Your task to perform on an android device: star an email in the gmail app Image 0: 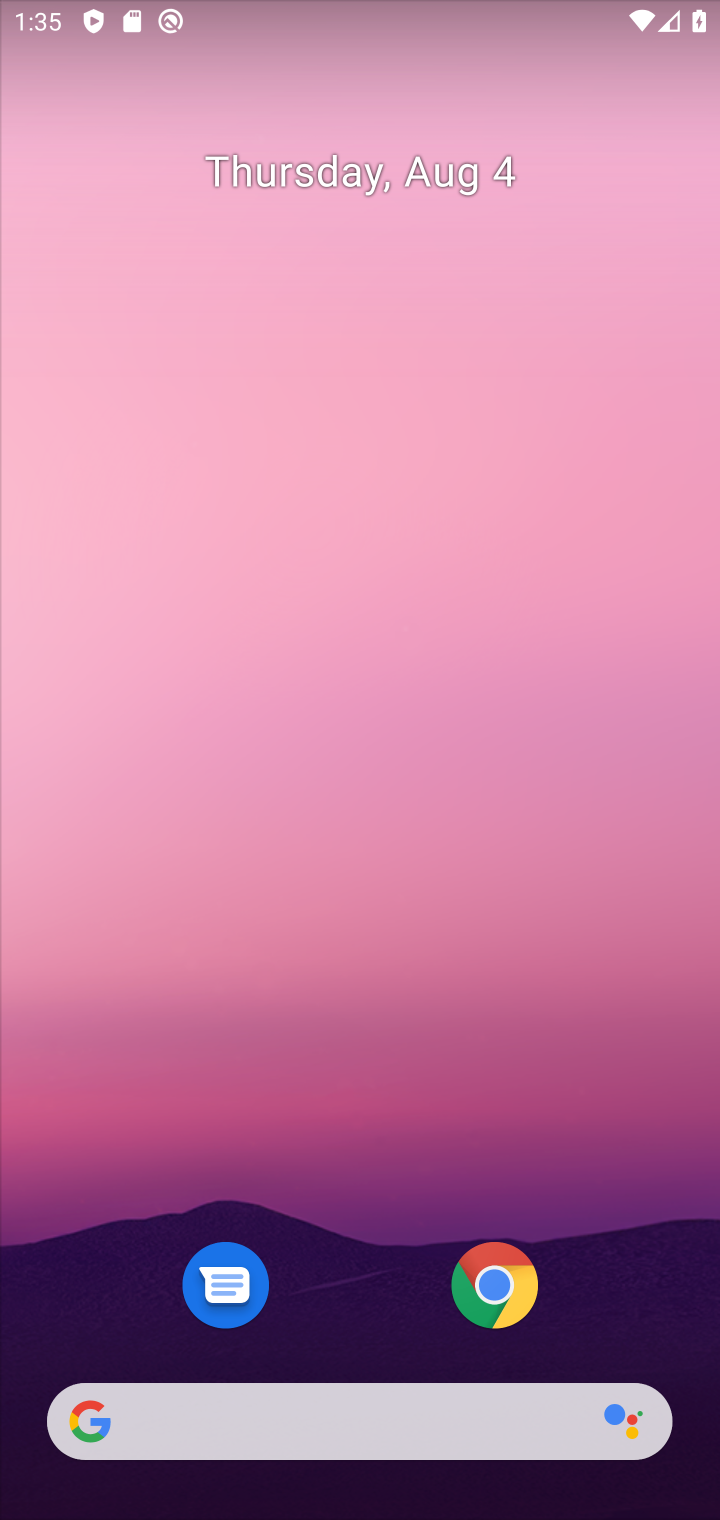
Step 0: press home button
Your task to perform on an android device: star an email in the gmail app Image 1: 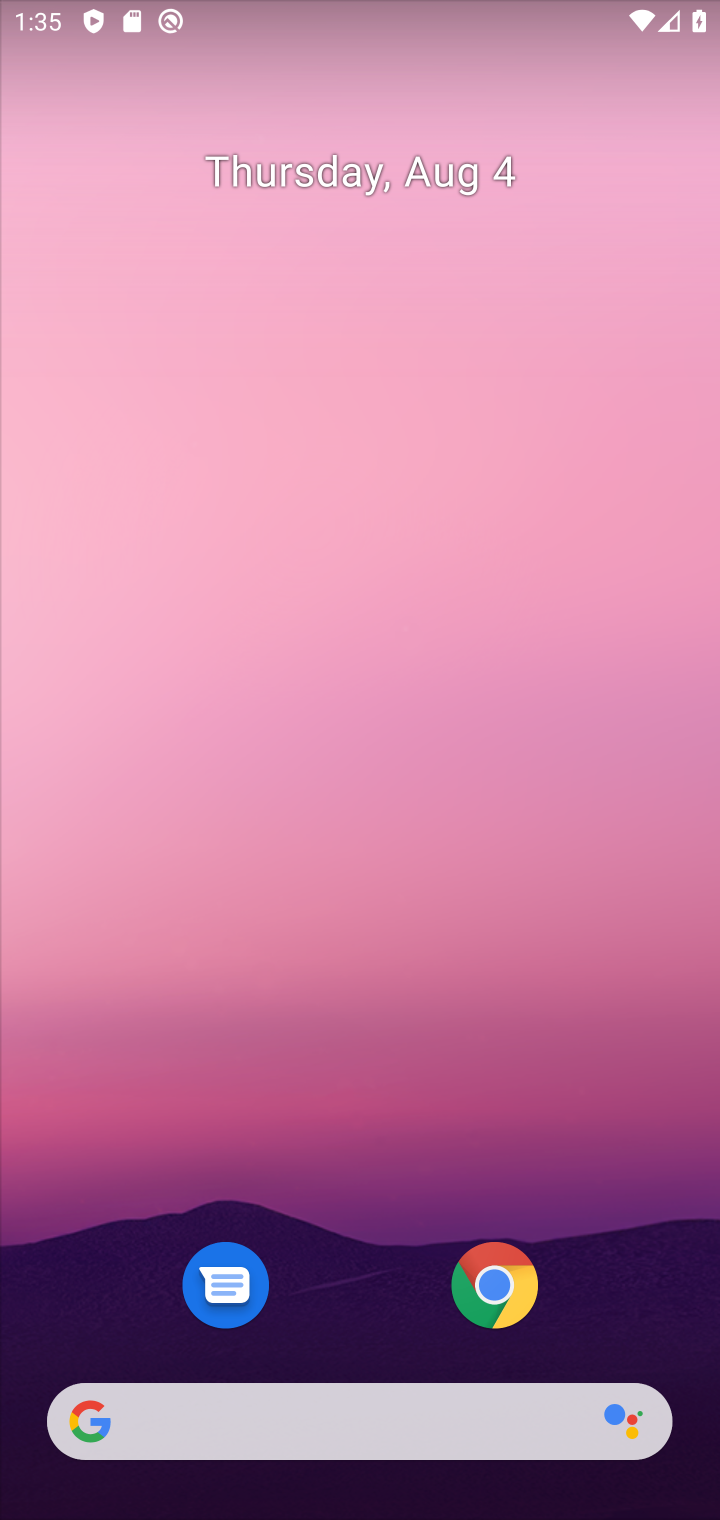
Step 1: drag from (663, 1303) to (536, 236)
Your task to perform on an android device: star an email in the gmail app Image 2: 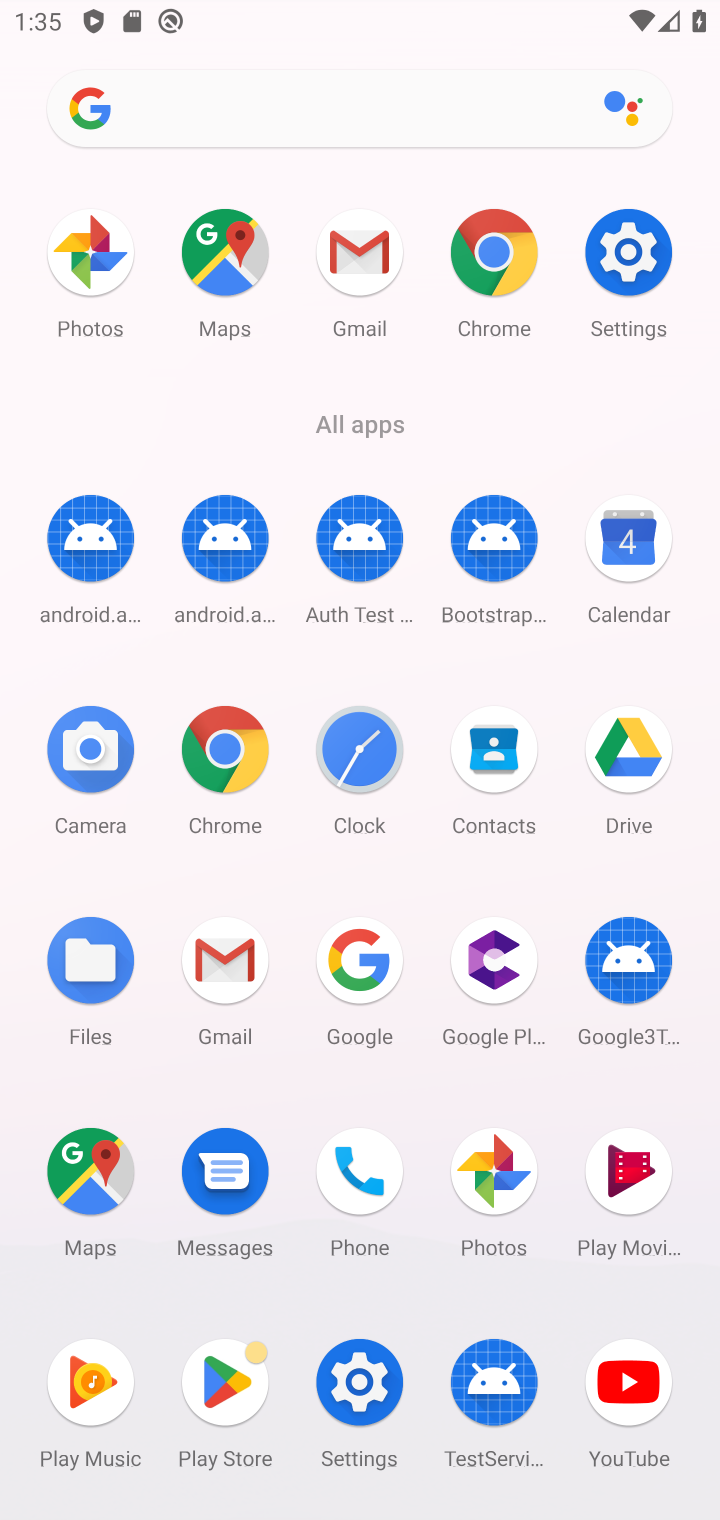
Step 2: click (230, 961)
Your task to perform on an android device: star an email in the gmail app Image 3: 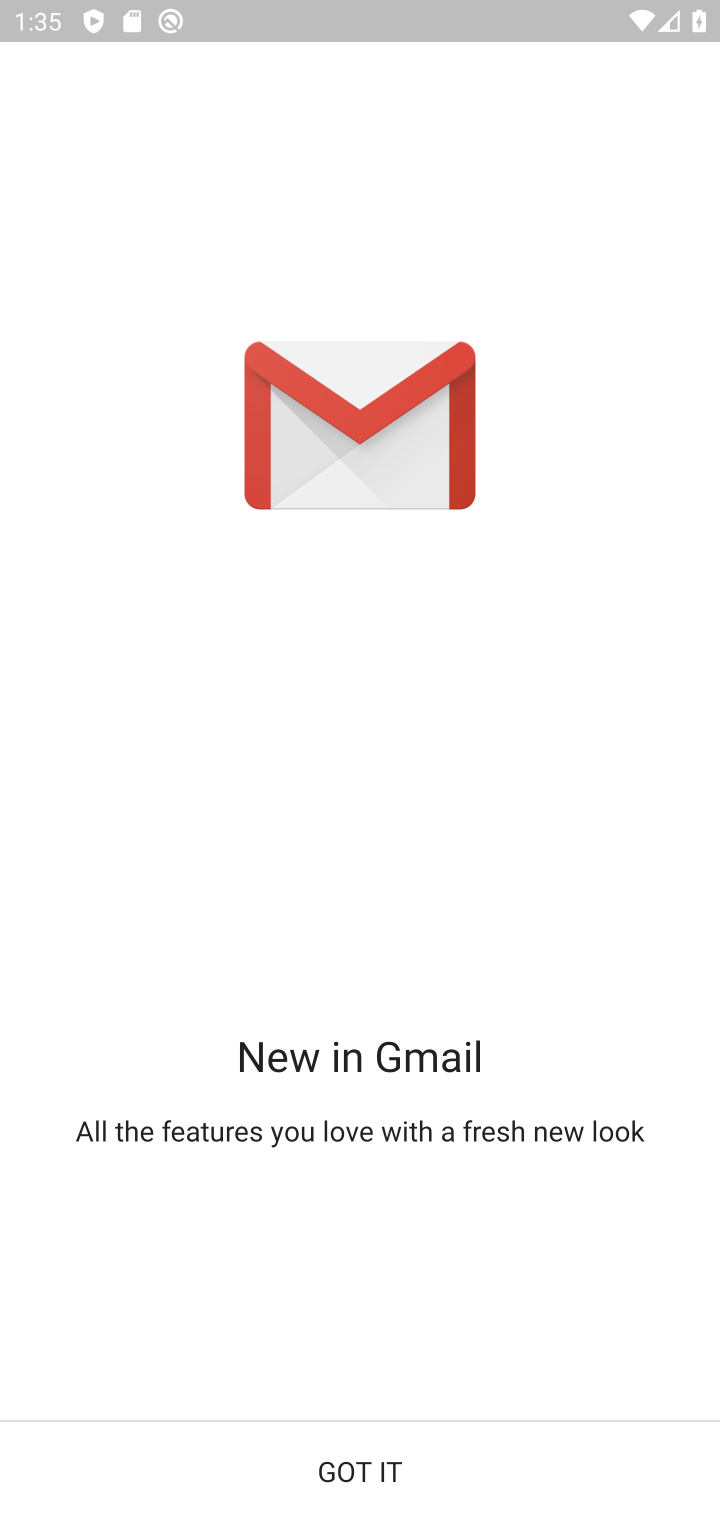
Step 3: click (361, 1458)
Your task to perform on an android device: star an email in the gmail app Image 4: 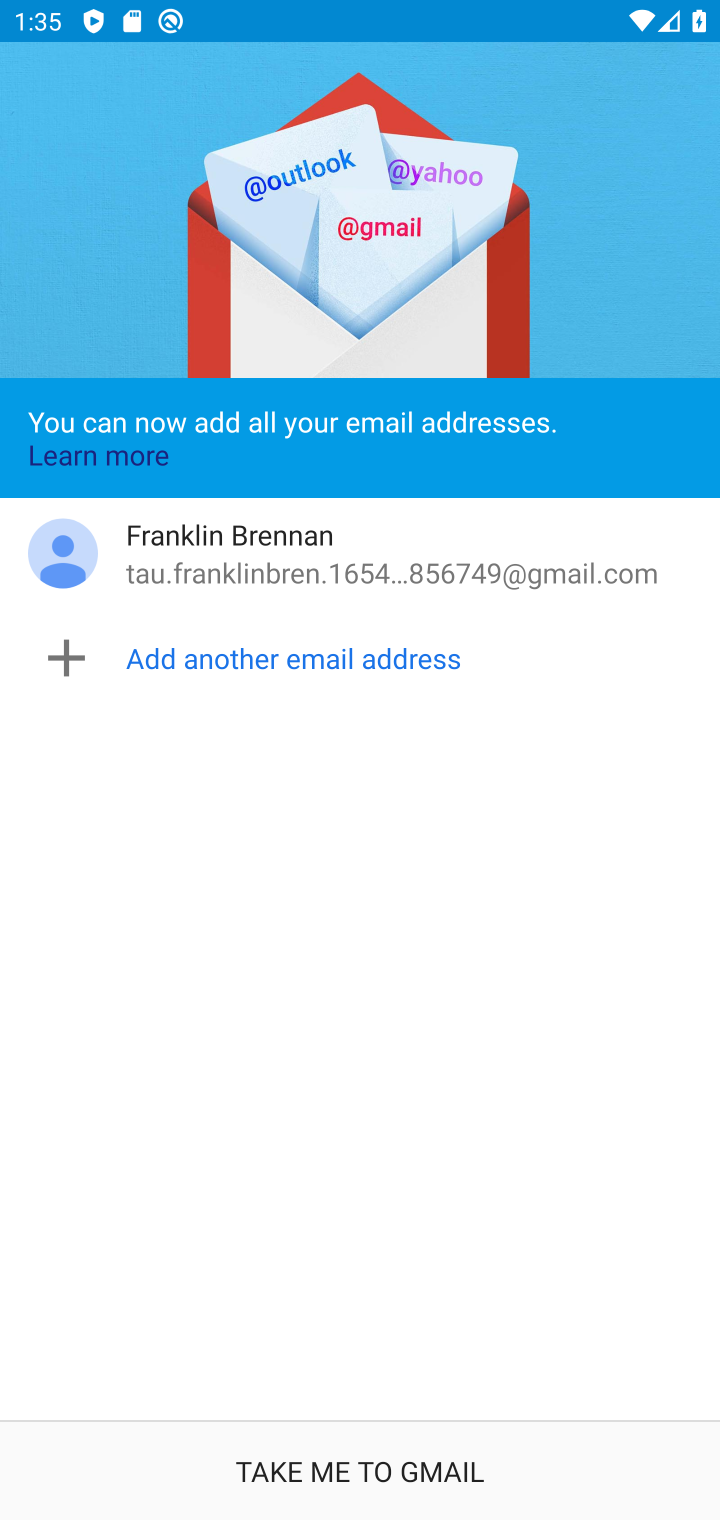
Step 4: click (361, 1458)
Your task to perform on an android device: star an email in the gmail app Image 5: 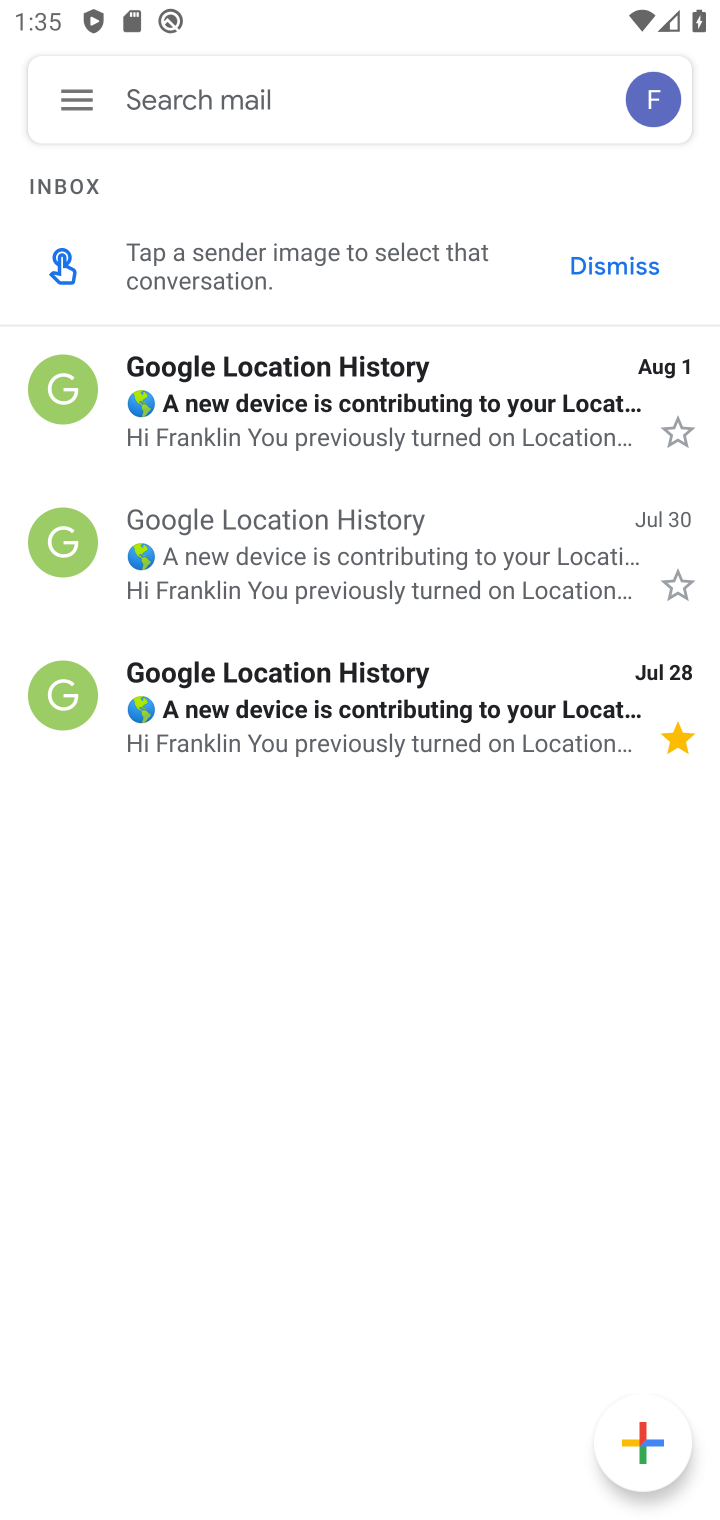
Step 5: click (73, 107)
Your task to perform on an android device: star an email in the gmail app Image 6: 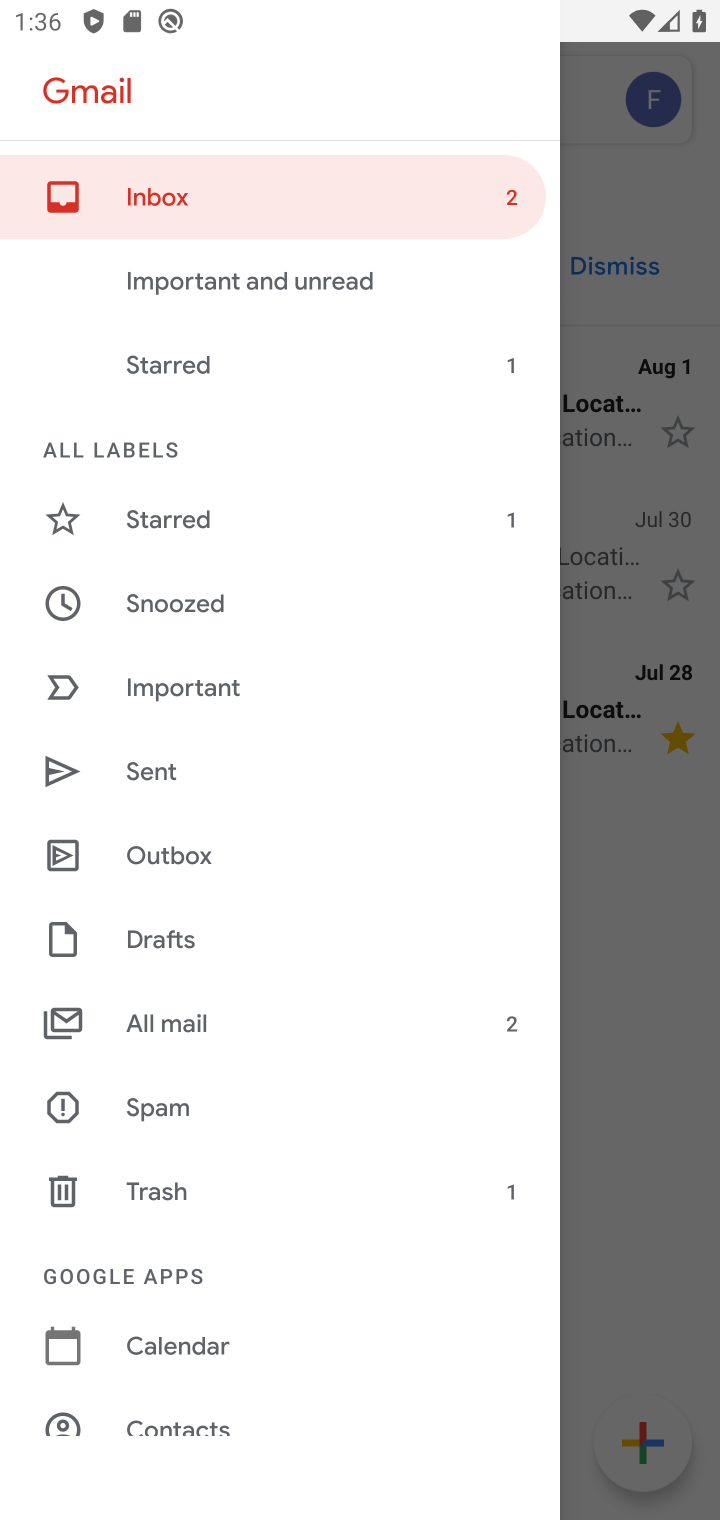
Step 6: click (188, 1029)
Your task to perform on an android device: star an email in the gmail app Image 7: 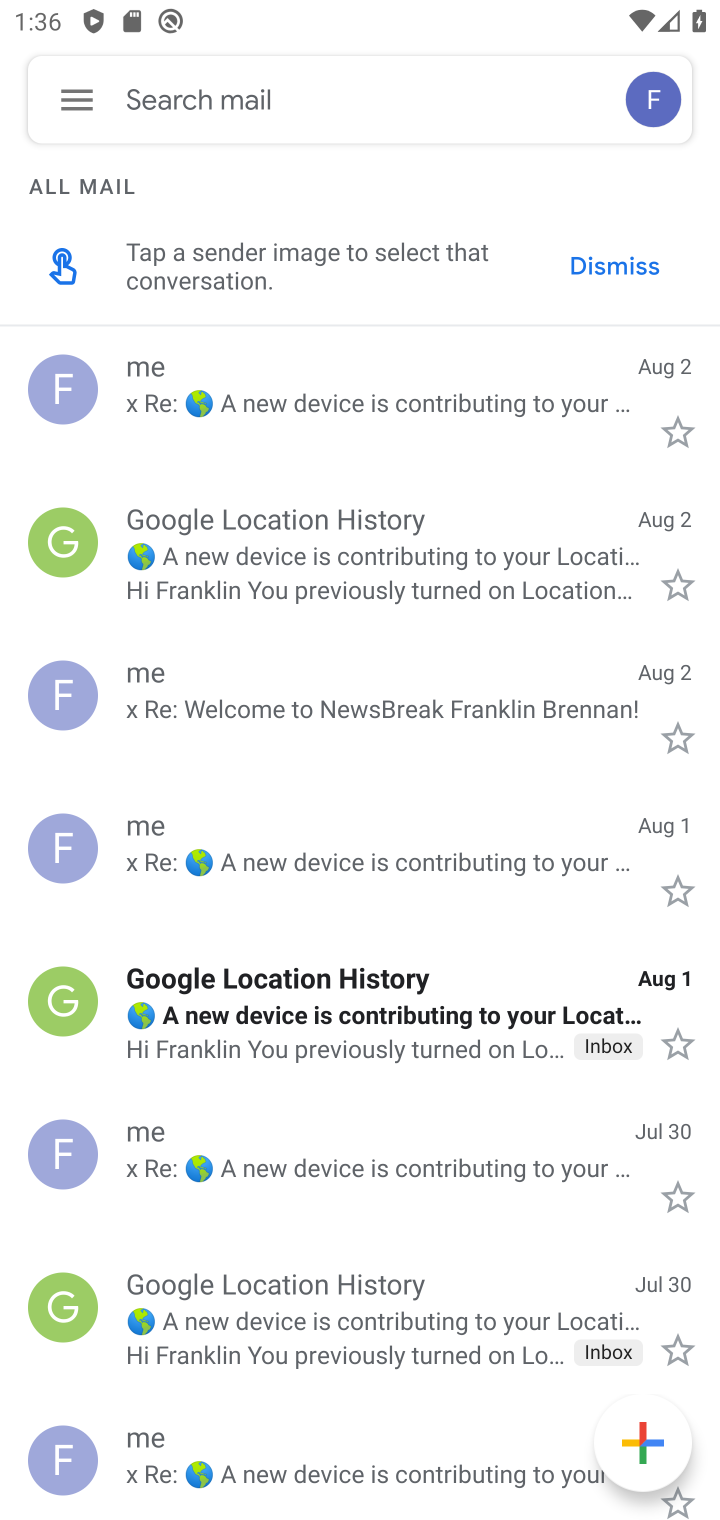
Step 7: click (676, 432)
Your task to perform on an android device: star an email in the gmail app Image 8: 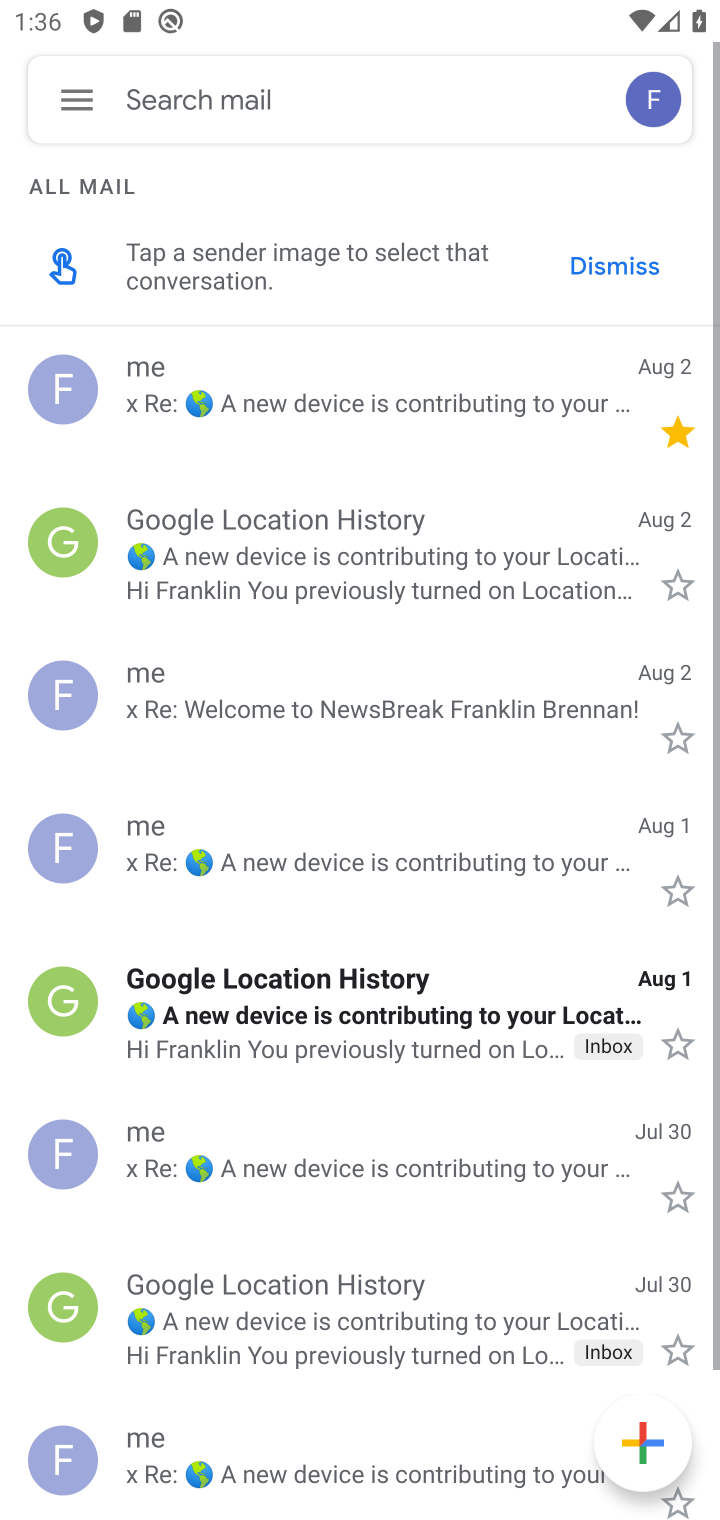
Step 8: task complete